Your task to perform on an android device: Turn off the flashlight Image 0: 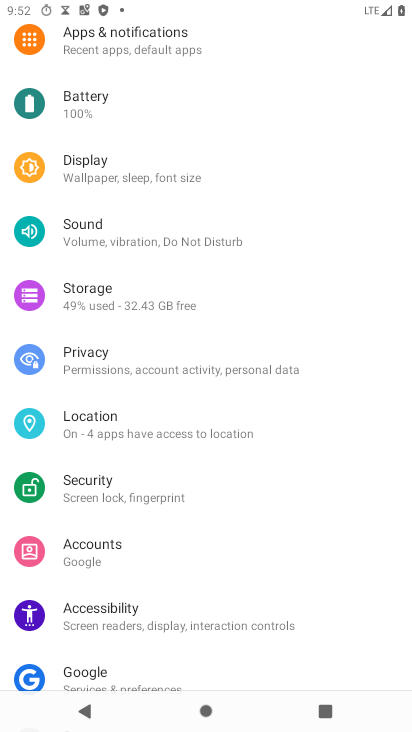
Step 0: drag from (163, 261) to (164, 615)
Your task to perform on an android device: Turn off the flashlight Image 1: 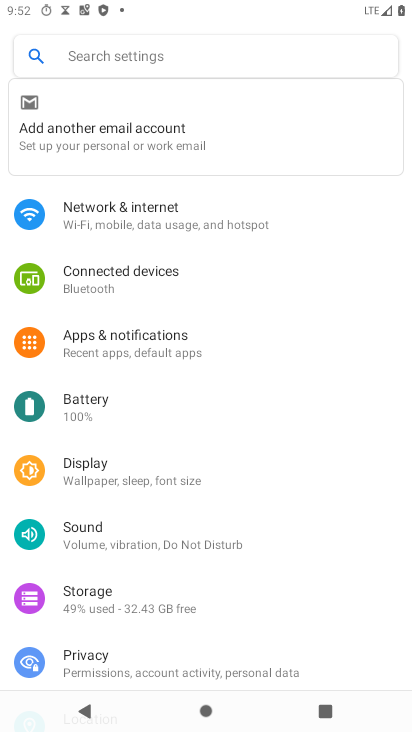
Step 1: click (113, 55)
Your task to perform on an android device: Turn off the flashlight Image 2: 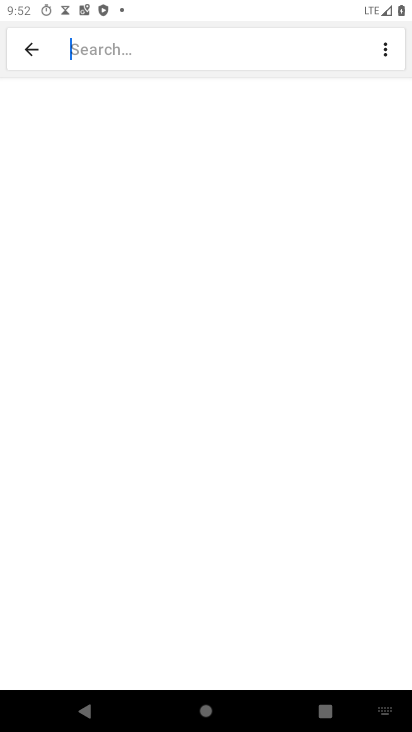
Step 2: type "flashlight"
Your task to perform on an android device: Turn off the flashlight Image 3: 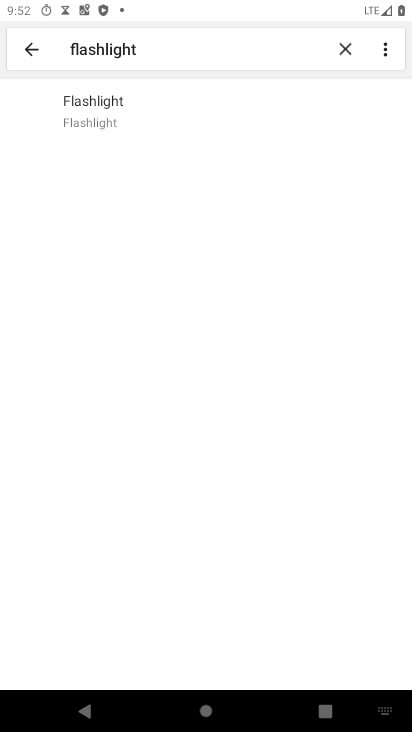
Step 3: click (108, 115)
Your task to perform on an android device: Turn off the flashlight Image 4: 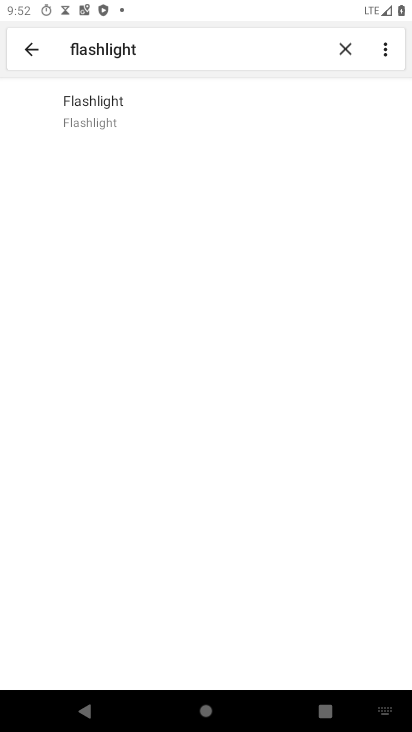
Step 4: click (92, 113)
Your task to perform on an android device: Turn off the flashlight Image 5: 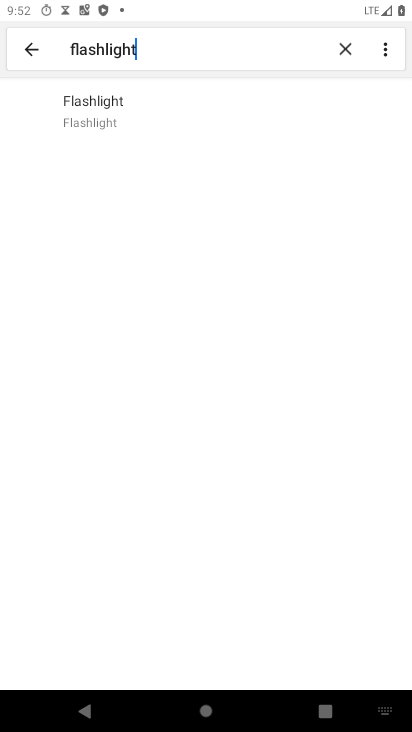
Step 5: task complete